Your task to perform on an android device: open a new tab in the chrome app Image 0: 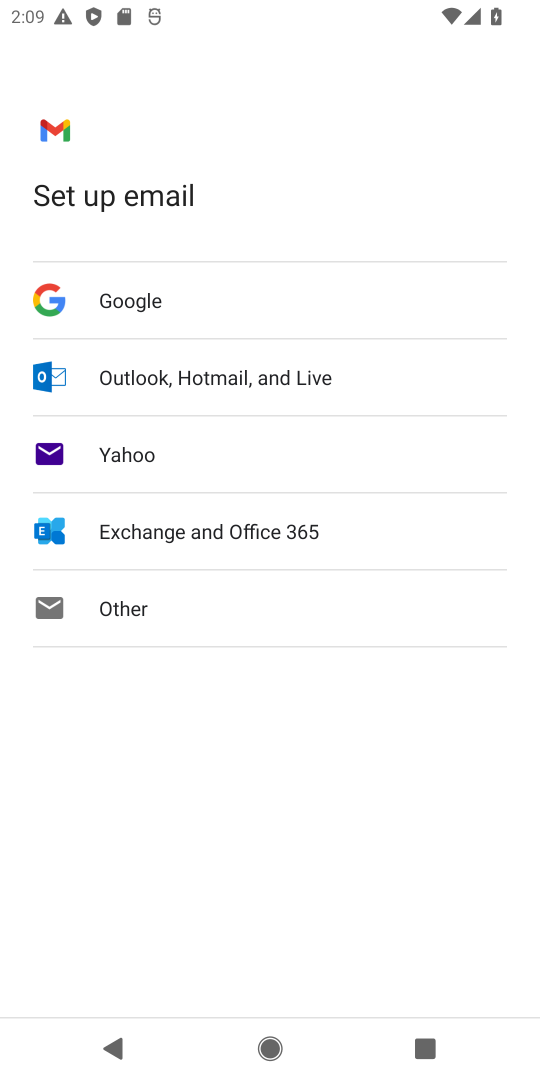
Step 0: press home button
Your task to perform on an android device: open a new tab in the chrome app Image 1: 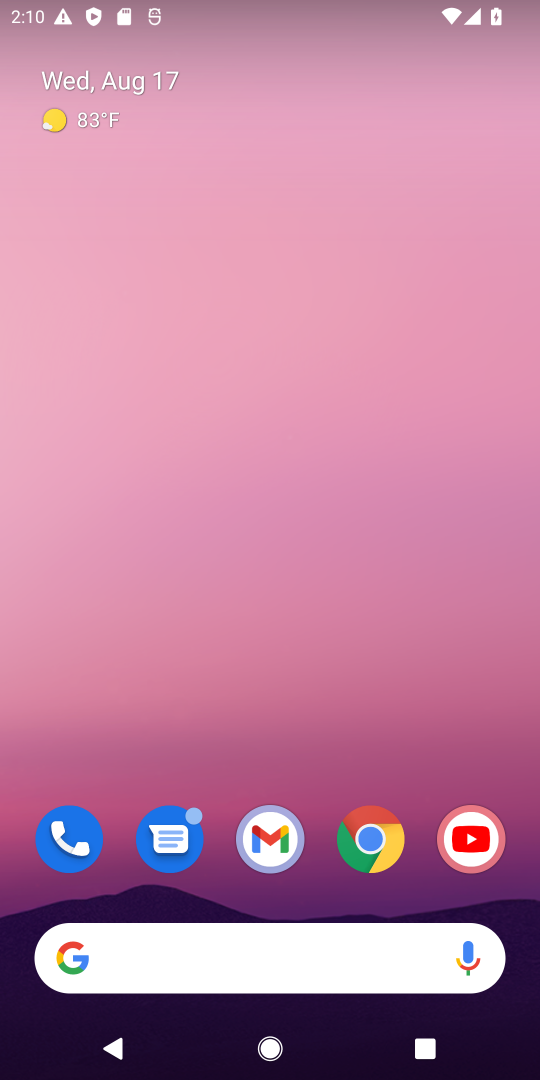
Step 1: click (371, 841)
Your task to perform on an android device: open a new tab in the chrome app Image 2: 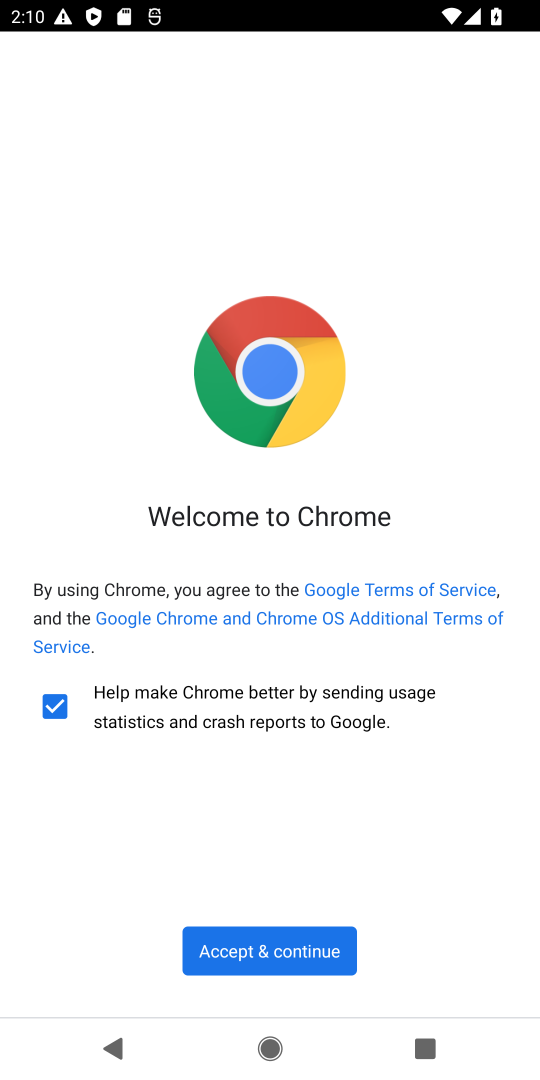
Step 2: click (323, 945)
Your task to perform on an android device: open a new tab in the chrome app Image 3: 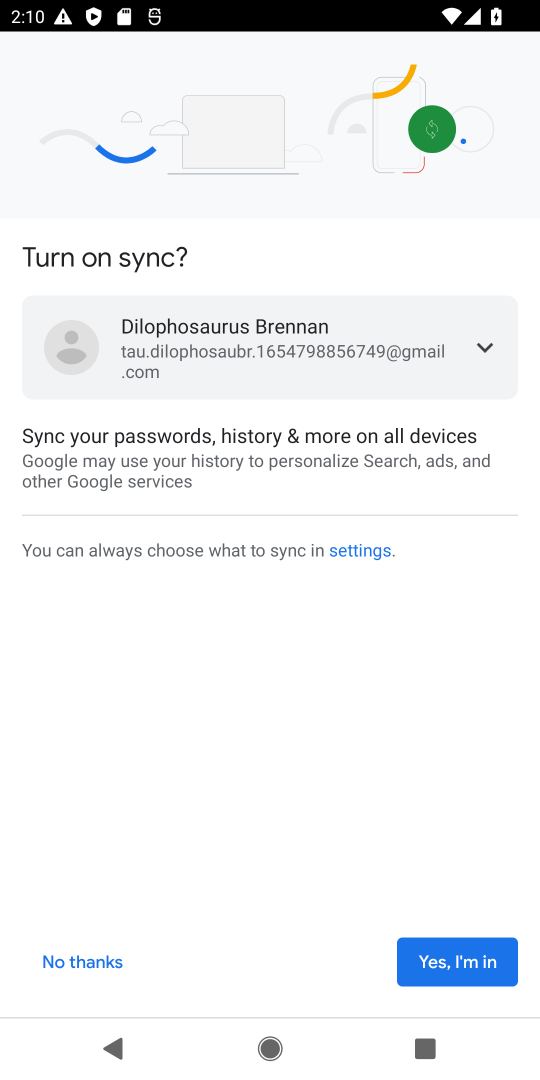
Step 3: click (459, 968)
Your task to perform on an android device: open a new tab in the chrome app Image 4: 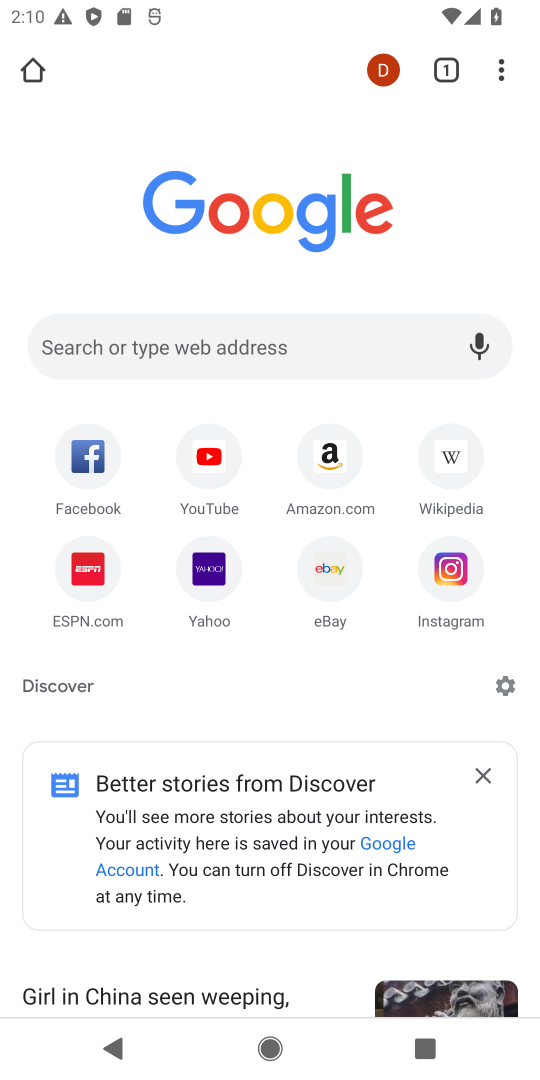
Step 4: task complete